Your task to perform on an android device: turn off improve location accuracy Image 0: 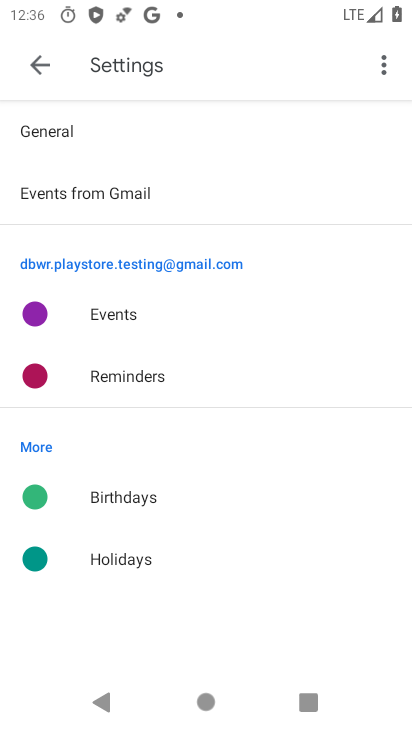
Step 0: click (41, 64)
Your task to perform on an android device: turn off improve location accuracy Image 1: 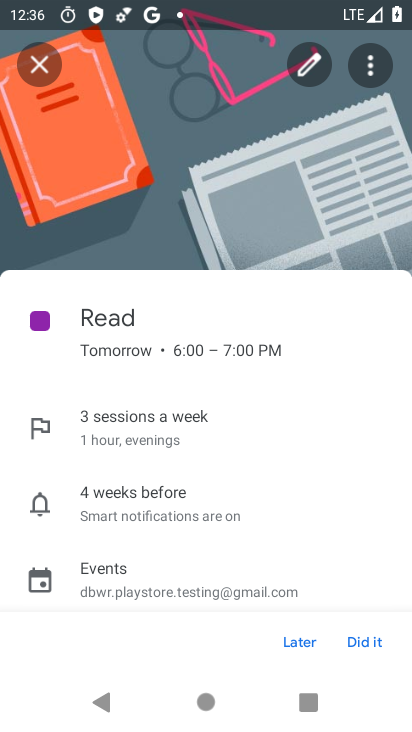
Step 1: click (293, 635)
Your task to perform on an android device: turn off improve location accuracy Image 2: 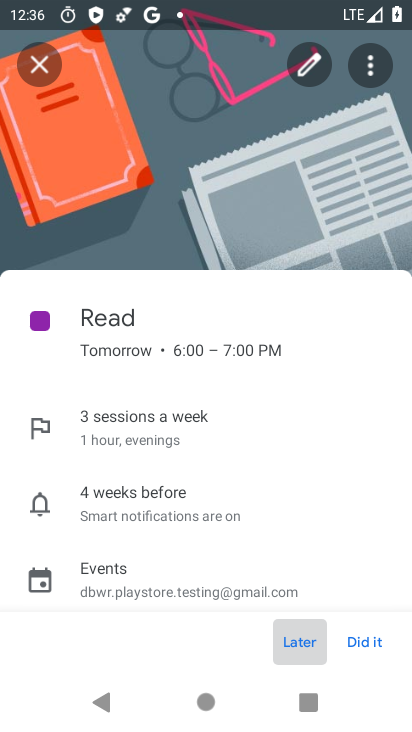
Step 2: click (293, 636)
Your task to perform on an android device: turn off improve location accuracy Image 3: 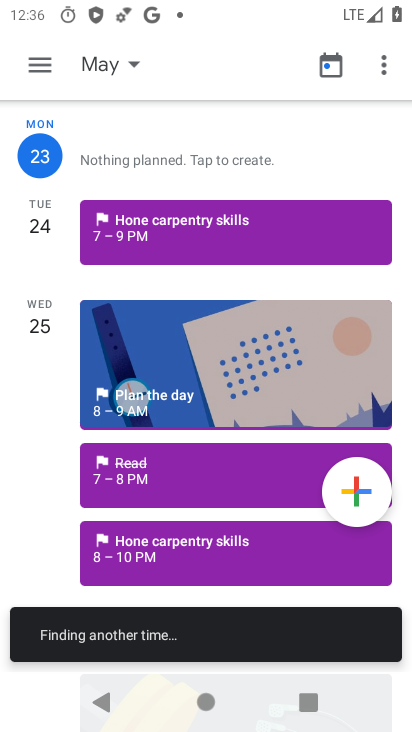
Step 3: press back button
Your task to perform on an android device: turn off improve location accuracy Image 4: 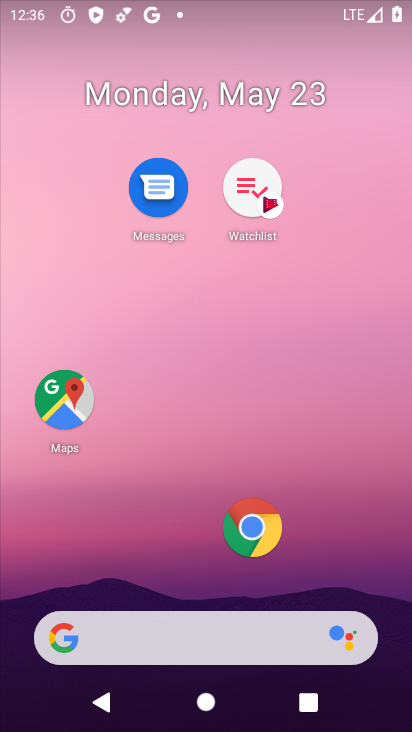
Step 4: drag from (321, 674) to (215, 174)
Your task to perform on an android device: turn off improve location accuracy Image 5: 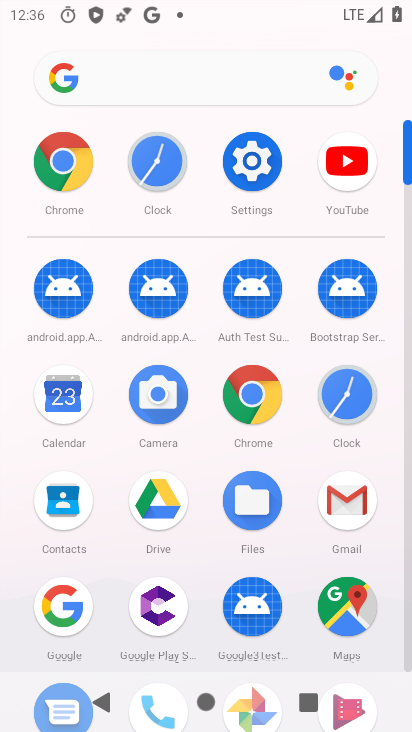
Step 5: click (253, 161)
Your task to perform on an android device: turn off improve location accuracy Image 6: 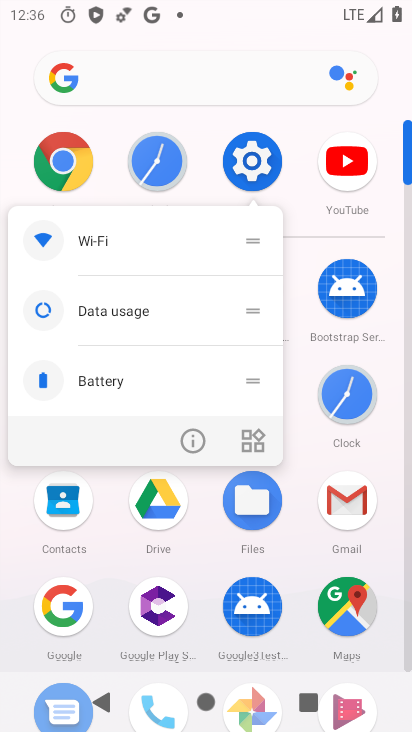
Step 6: click (239, 174)
Your task to perform on an android device: turn off improve location accuracy Image 7: 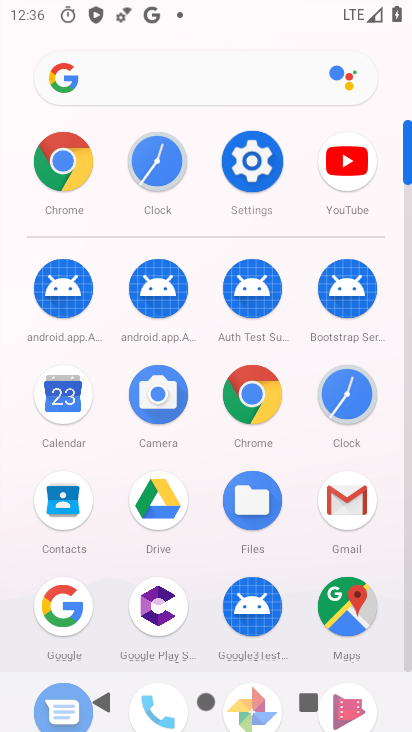
Step 7: click (259, 147)
Your task to perform on an android device: turn off improve location accuracy Image 8: 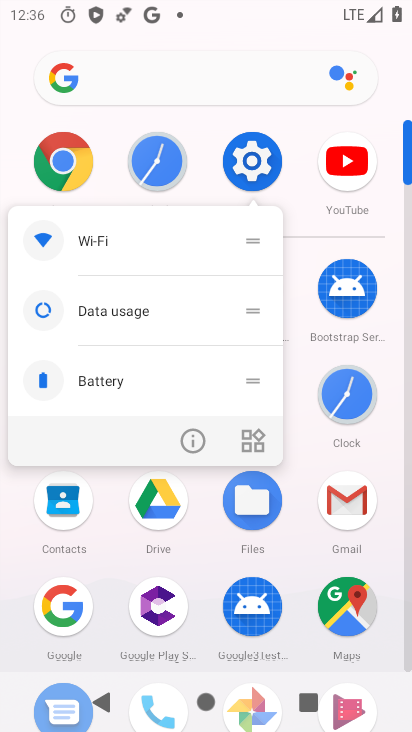
Step 8: click (265, 162)
Your task to perform on an android device: turn off improve location accuracy Image 9: 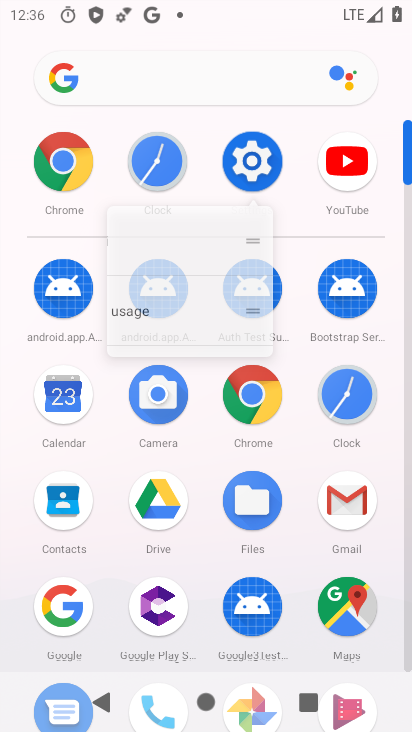
Step 9: click (265, 162)
Your task to perform on an android device: turn off improve location accuracy Image 10: 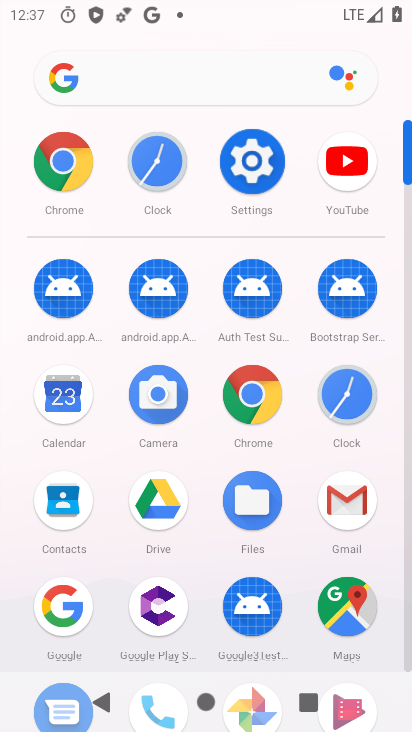
Step 10: click (265, 162)
Your task to perform on an android device: turn off improve location accuracy Image 11: 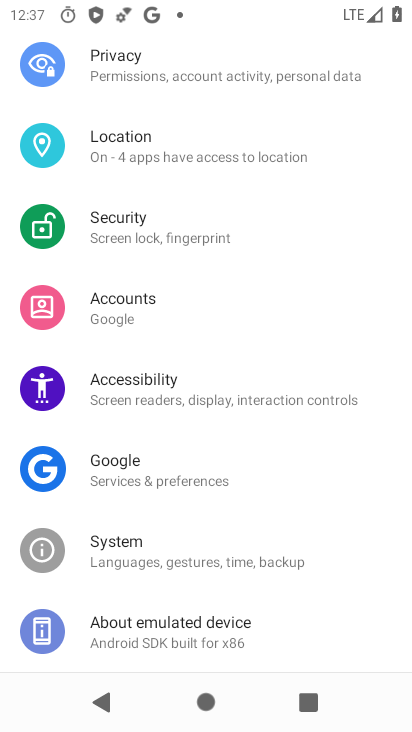
Step 11: click (265, 162)
Your task to perform on an android device: turn off improve location accuracy Image 12: 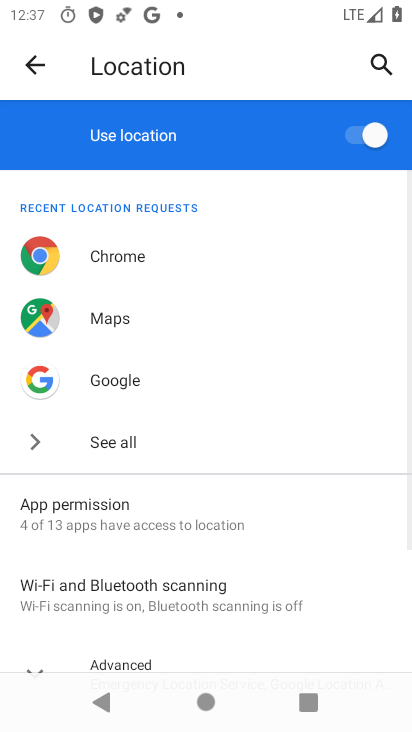
Step 12: drag from (112, 466) to (43, 178)
Your task to perform on an android device: turn off improve location accuracy Image 13: 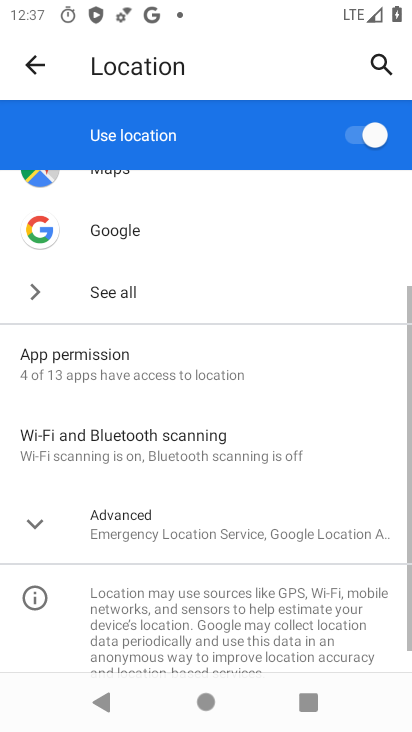
Step 13: drag from (152, 502) to (143, 254)
Your task to perform on an android device: turn off improve location accuracy Image 14: 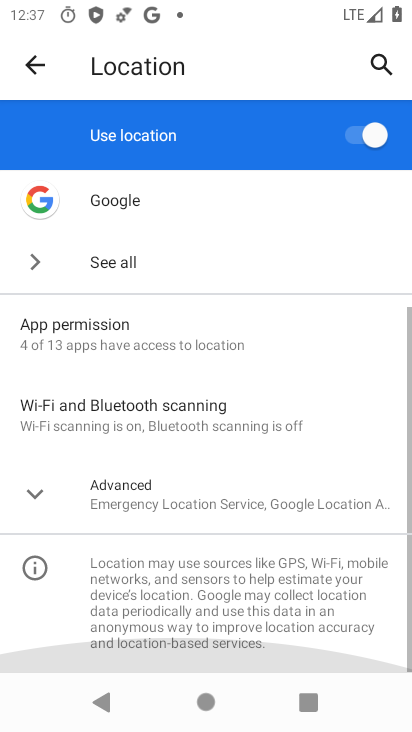
Step 14: drag from (192, 534) to (166, 234)
Your task to perform on an android device: turn off improve location accuracy Image 15: 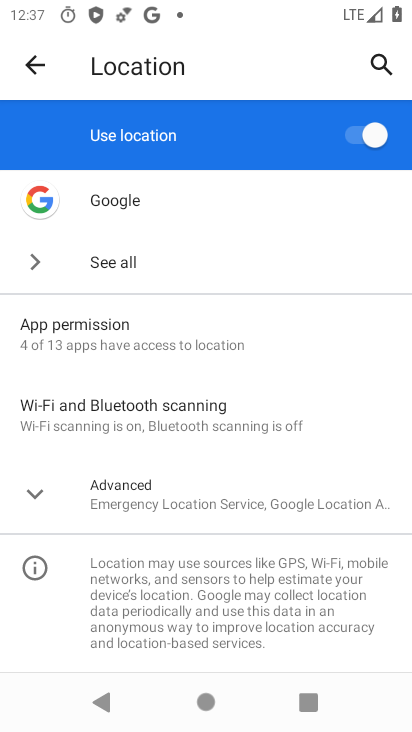
Step 15: click (197, 503)
Your task to perform on an android device: turn off improve location accuracy Image 16: 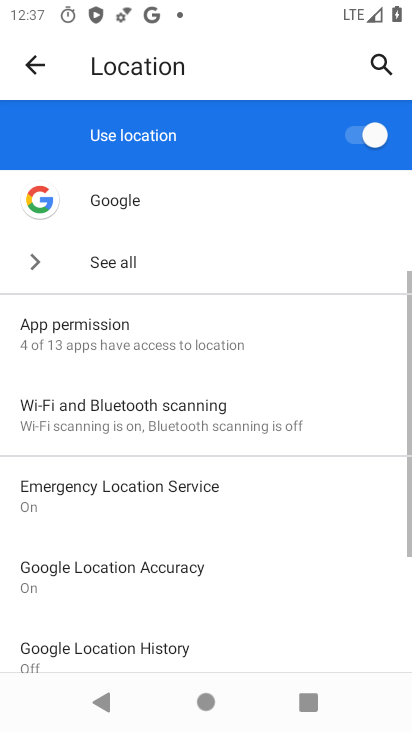
Step 16: drag from (243, 607) to (236, 363)
Your task to perform on an android device: turn off improve location accuracy Image 17: 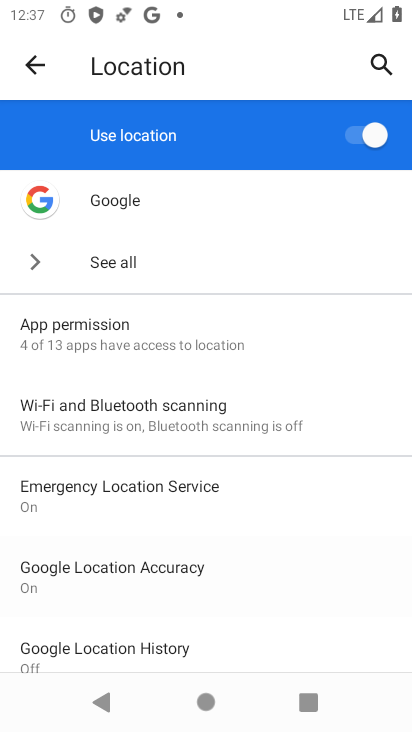
Step 17: drag from (250, 508) to (234, 360)
Your task to perform on an android device: turn off improve location accuracy Image 18: 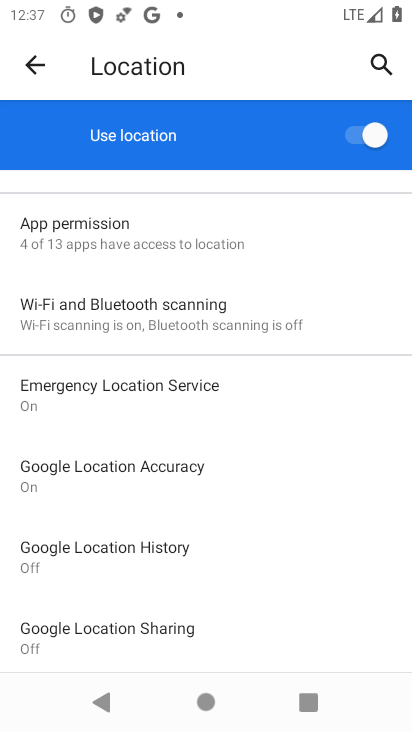
Step 18: click (99, 455)
Your task to perform on an android device: turn off improve location accuracy Image 19: 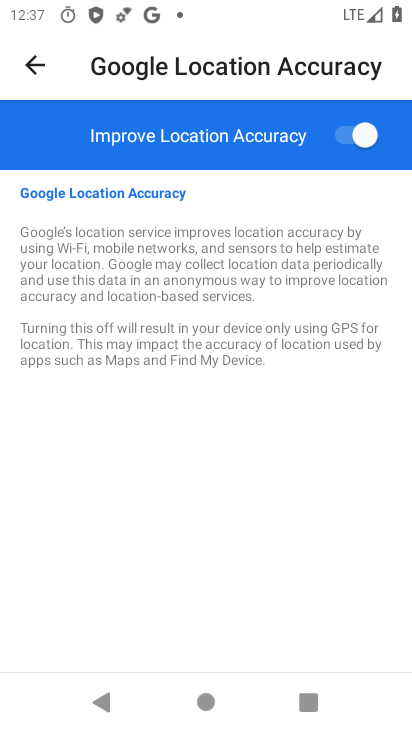
Step 19: click (365, 123)
Your task to perform on an android device: turn off improve location accuracy Image 20: 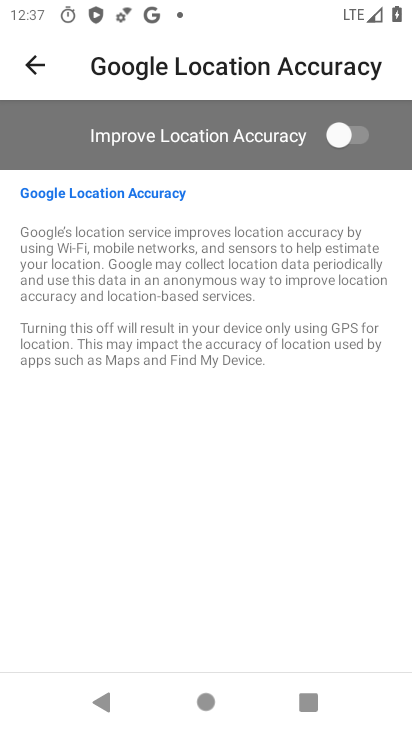
Step 20: task complete